Your task to perform on an android device: turn notification dots on Image 0: 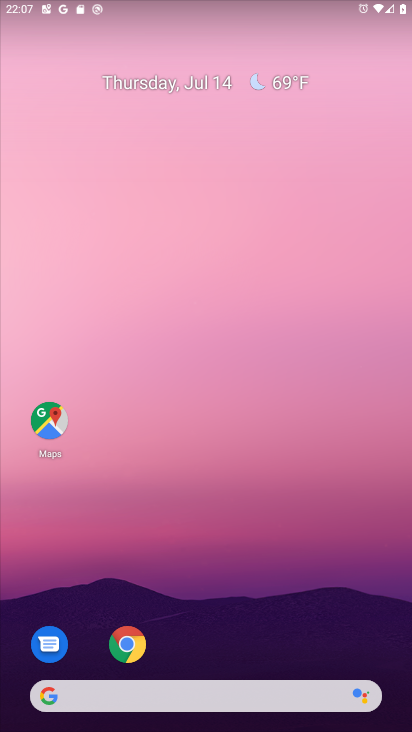
Step 0: drag from (188, 645) to (243, 127)
Your task to perform on an android device: turn notification dots on Image 1: 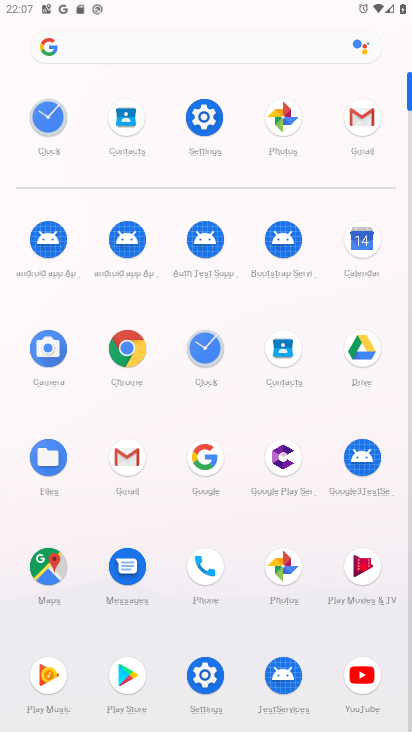
Step 1: click (195, 123)
Your task to perform on an android device: turn notification dots on Image 2: 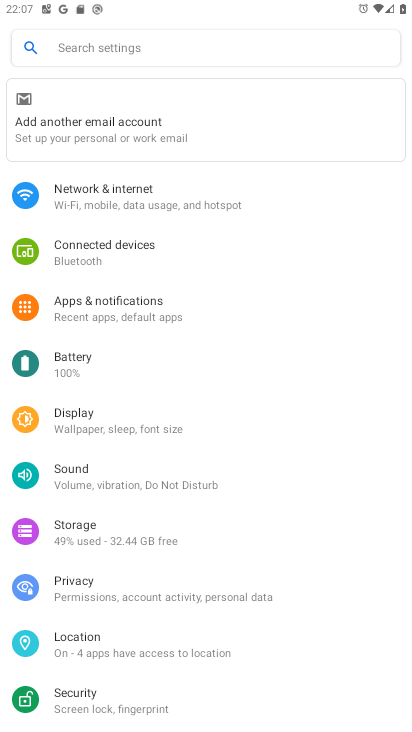
Step 2: click (140, 301)
Your task to perform on an android device: turn notification dots on Image 3: 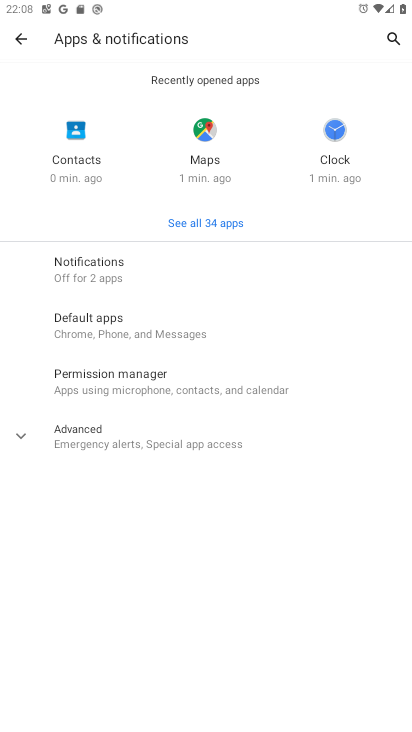
Step 3: click (138, 276)
Your task to perform on an android device: turn notification dots on Image 4: 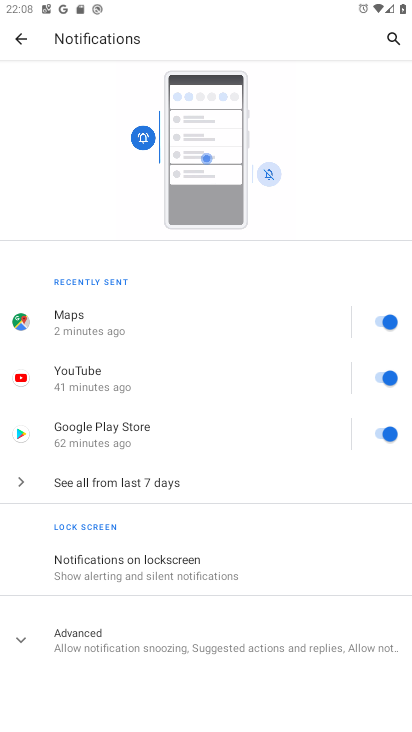
Step 4: click (175, 562)
Your task to perform on an android device: turn notification dots on Image 5: 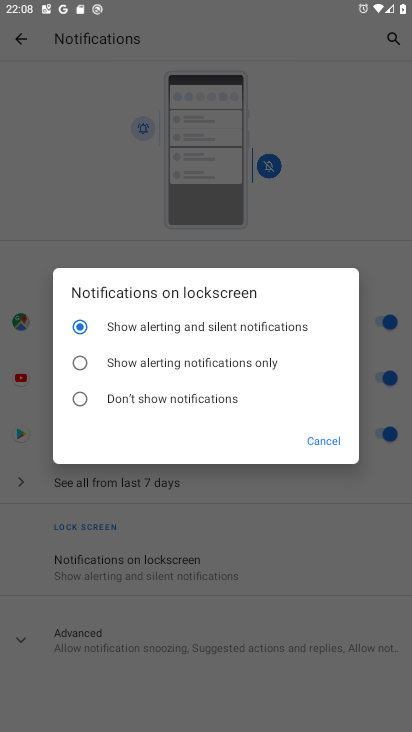
Step 5: click (345, 438)
Your task to perform on an android device: turn notification dots on Image 6: 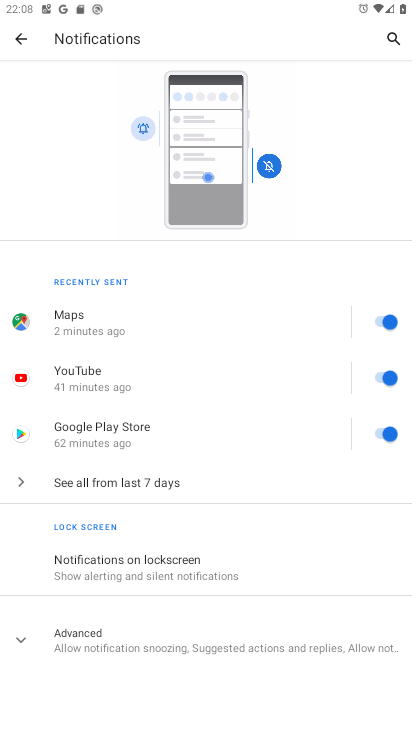
Step 6: click (193, 633)
Your task to perform on an android device: turn notification dots on Image 7: 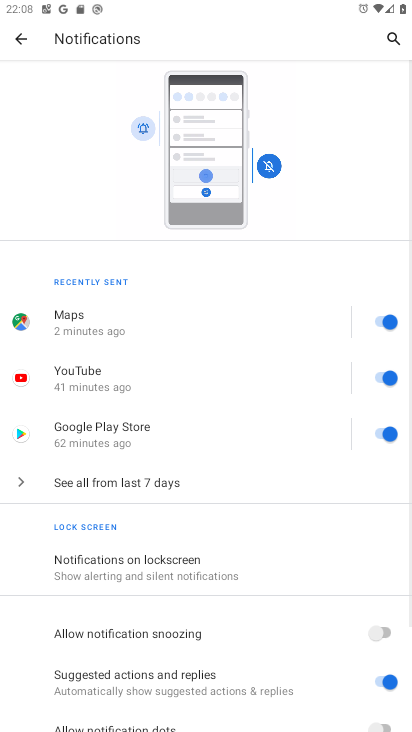
Step 7: drag from (193, 633) to (203, 209)
Your task to perform on an android device: turn notification dots on Image 8: 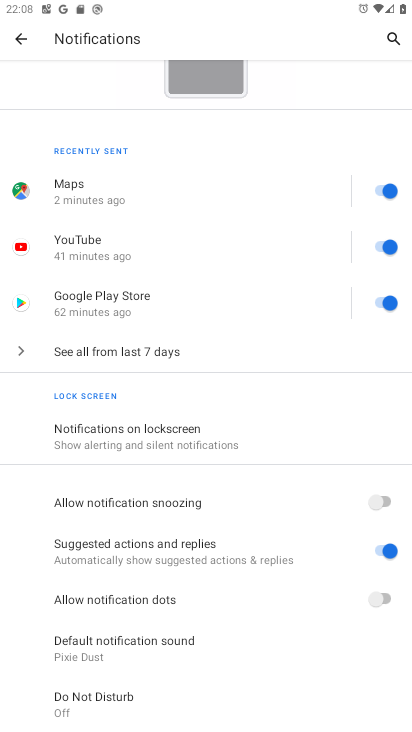
Step 8: click (385, 598)
Your task to perform on an android device: turn notification dots on Image 9: 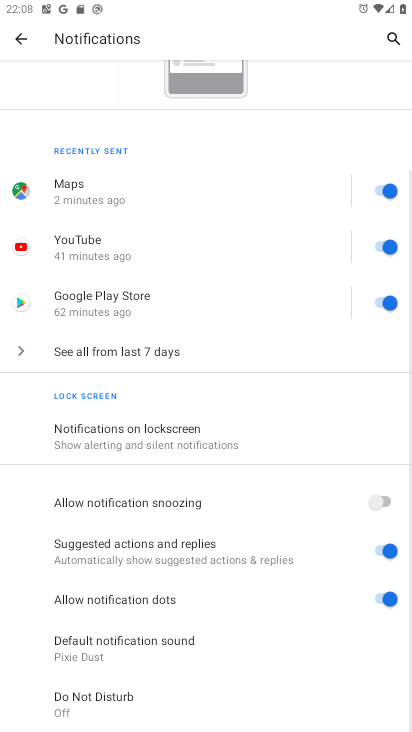
Step 9: task complete